Your task to perform on an android device: turn off picture-in-picture Image 0: 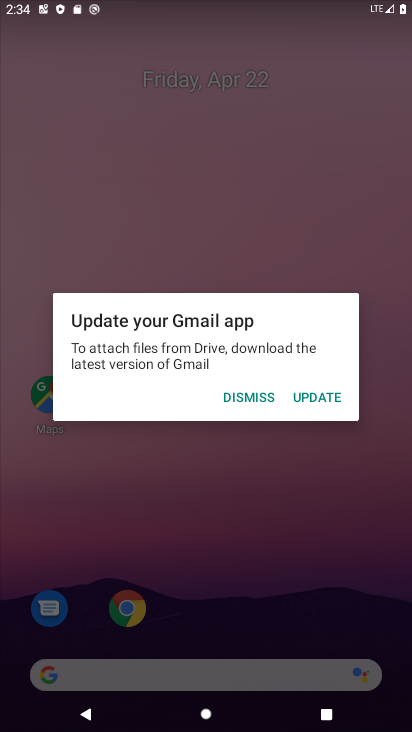
Step 0: press home button
Your task to perform on an android device: turn off picture-in-picture Image 1: 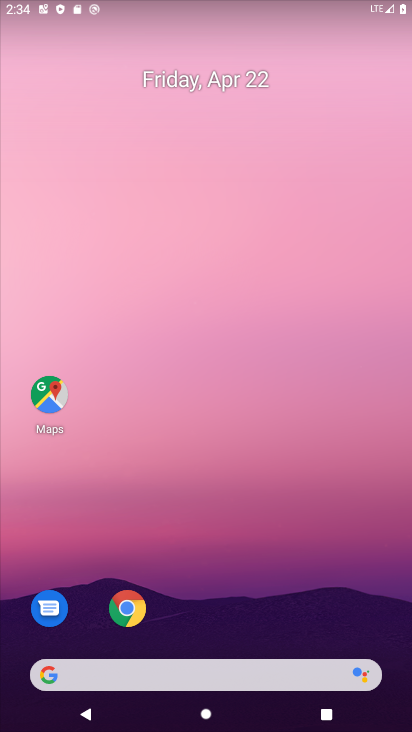
Step 1: drag from (281, 692) to (197, 116)
Your task to perform on an android device: turn off picture-in-picture Image 2: 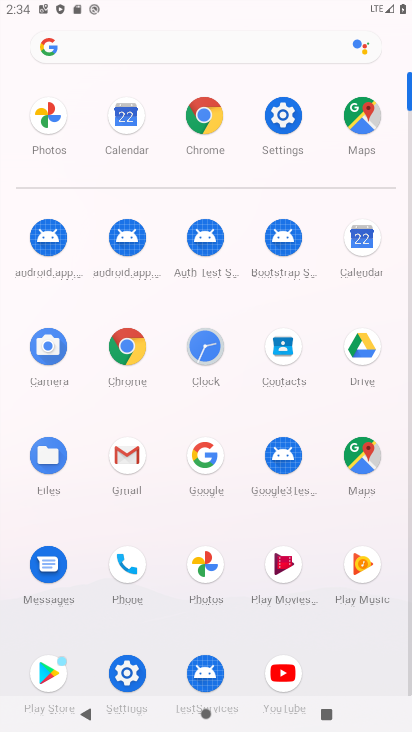
Step 2: click (279, 105)
Your task to perform on an android device: turn off picture-in-picture Image 3: 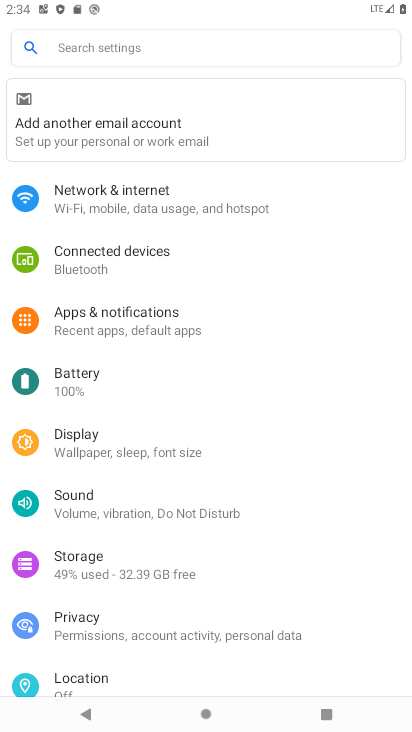
Step 3: click (144, 47)
Your task to perform on an android device: turn off picture-in-picture Image 4: 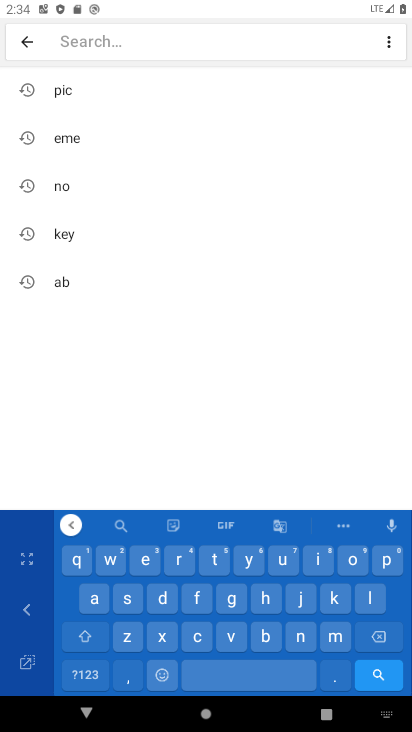
Step 4: click (127, 100)
Your task to perform on an android device: turn off picture-in-picture Image 5: 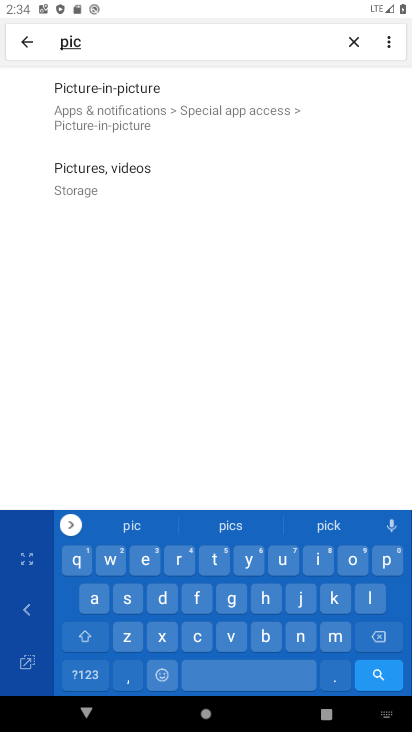
Step 5: click (149, 100)
Your task to perform on an android device: turn off picture-in-picture Image 6: 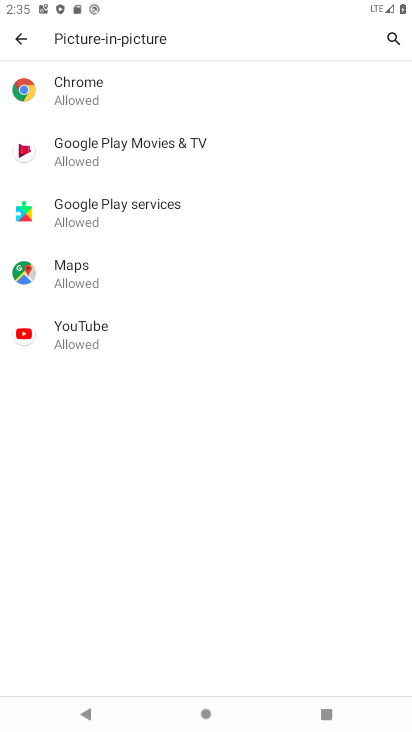
Step 6: task complete